Your task to perform on an android device: change your default location settings in chrome Image 0: 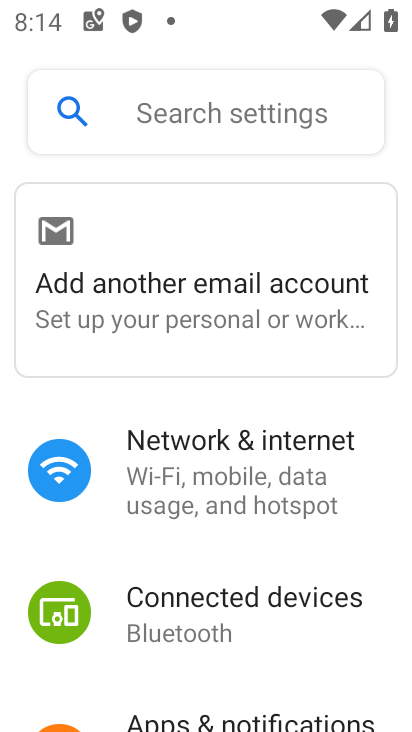
Step 0: press home button
Your task to perform on an android device: change your default location settings in chrome Image 1: 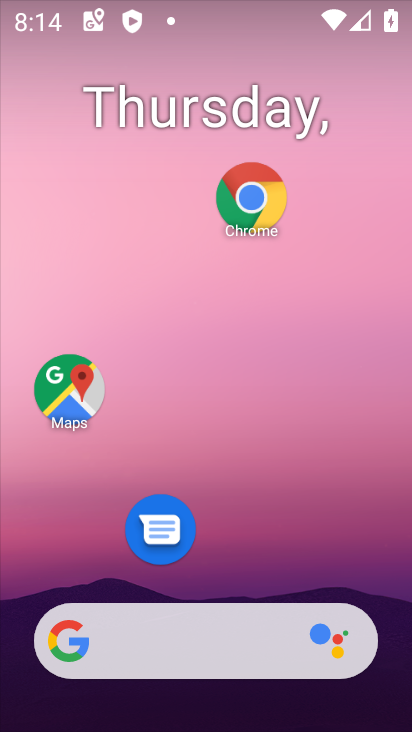
Step 1: drag from (214, 558) to (225, 230)
Your task to perform on an android device: change your default location settings in chrome Image 2: 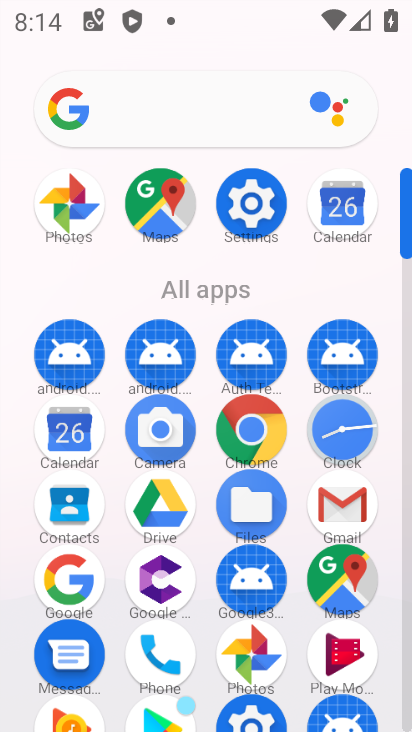
Step 2: click (258, 437)
Your task to perform on an android device: change your default location settings in chrome Image 3: 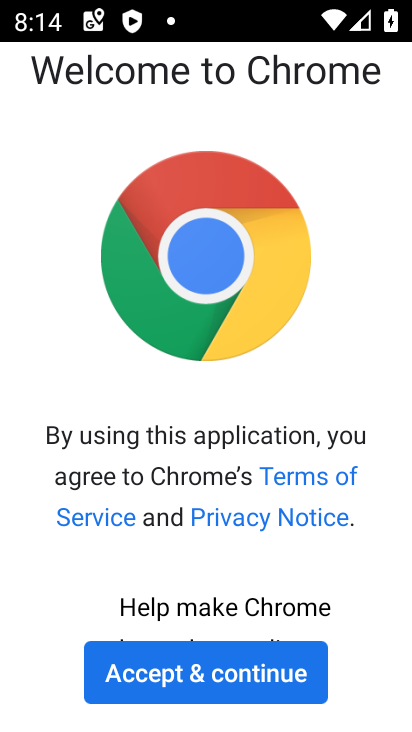
Step 3: click (189, 683)
Your task to perform on an android device: change your default location settings in chrome Image 4: 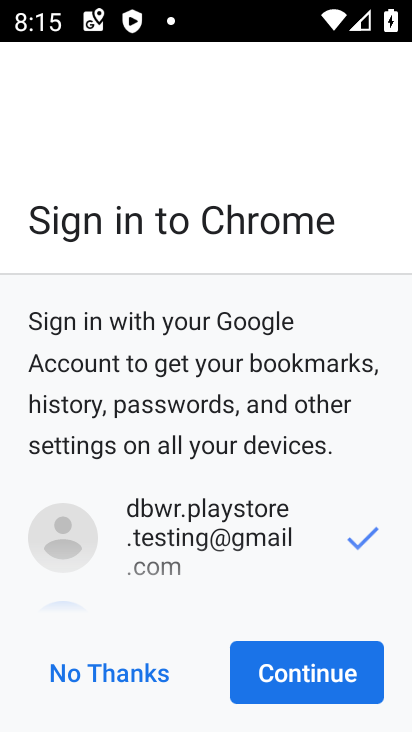
Step 4: click (259, 690)
Your task to perform on an android device: change your default location settings in chrome Image 5: 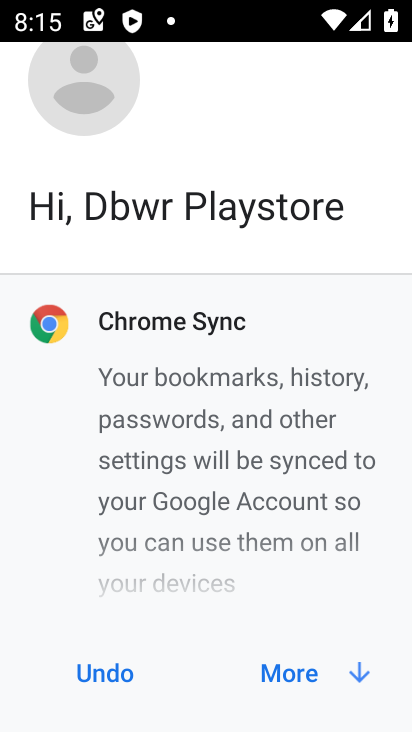
Step 5: click (282, 668)
Your task to perform on an android device: change your default location settings in chrome Image 6: 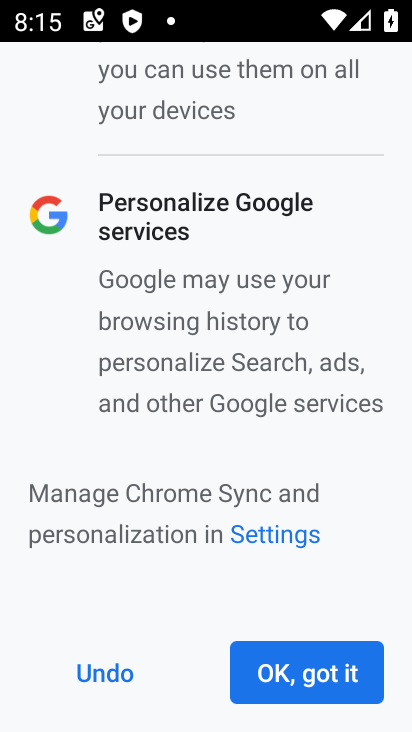
Step 6: click (282, 668)
Your task to perform on an android device: change your default location settings in chrome Image 7: 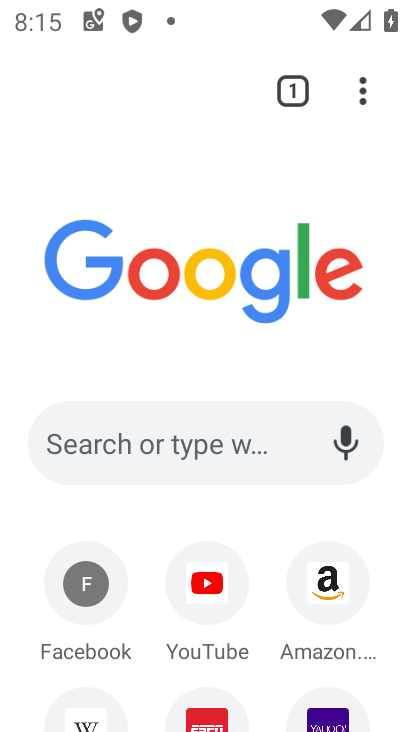
Step 7: click (357, 92)
Your task to perform on an android device: change your default location settings in chrome Image 8: 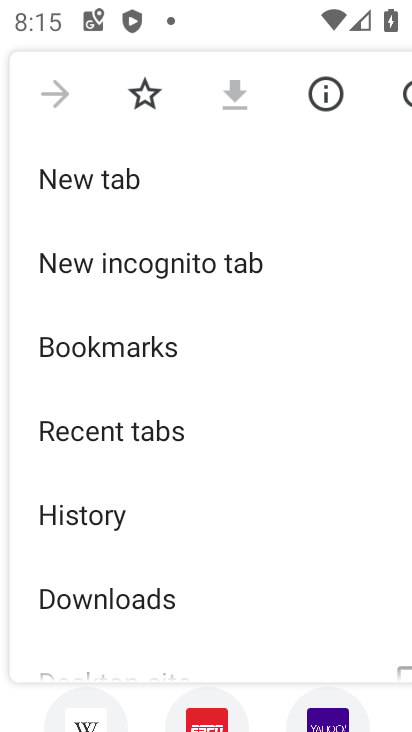
Step 8: drag from (143, 545) to (142, 254)
Your task to perform on an android device: change your default location settings in chrome Image 9: 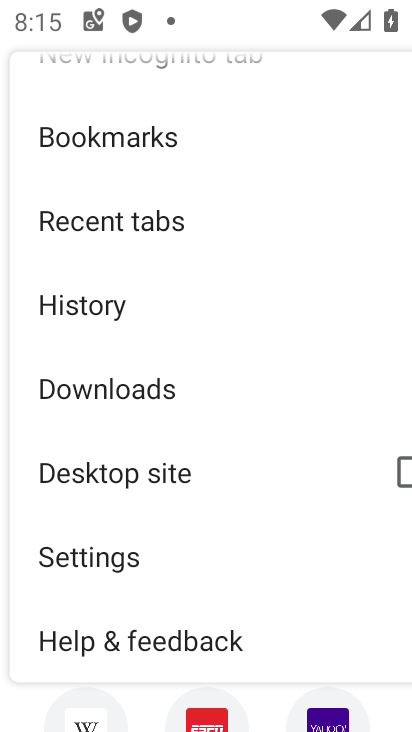
Step 9: click (93, 564)
Your task to perform on an android device: change your default location settings in chrome Image 10: 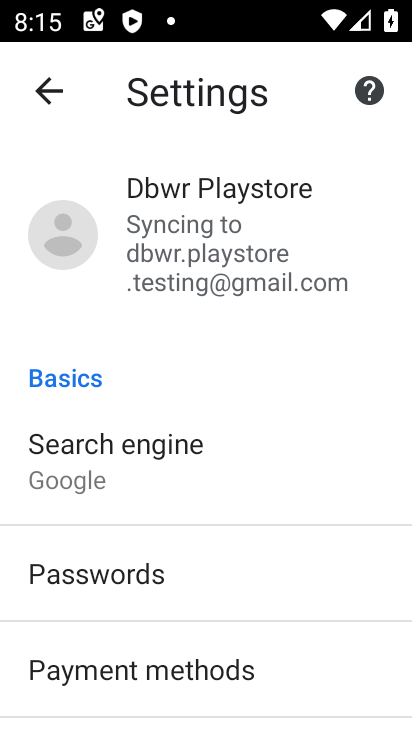
Step 10: drag from (112, 576) to (118, 328)
Your task to perform on an android device: change your default location settings in chrome Image 11: 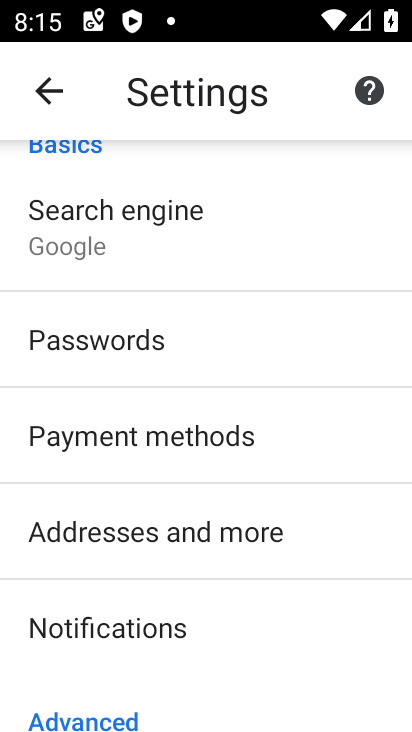
Step 11: drag from (209, 692) to (226, 378)
Your task to perform on an android device: change your default location settings in chrome Image 12: 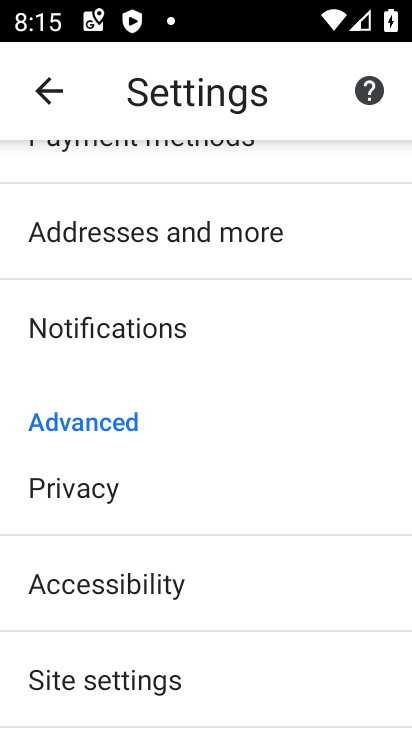
Step 12: click (151, 671)
Your task to perform on an android device: change your default location settings in chrome Image 13: 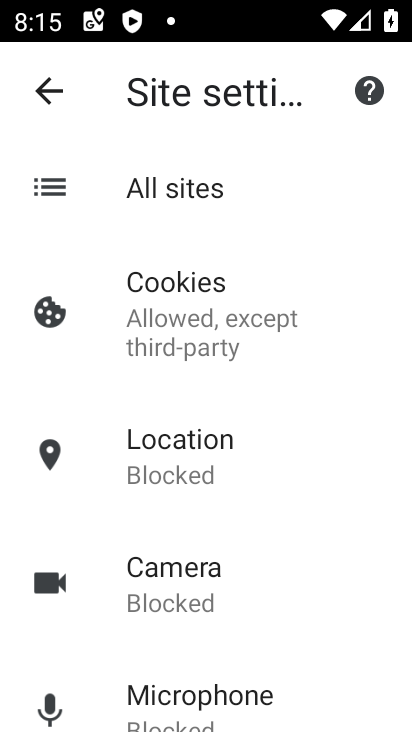
Step 13: click (128, 445)
Your task to perform on an android device: change your default location settings in chrome Image 14: 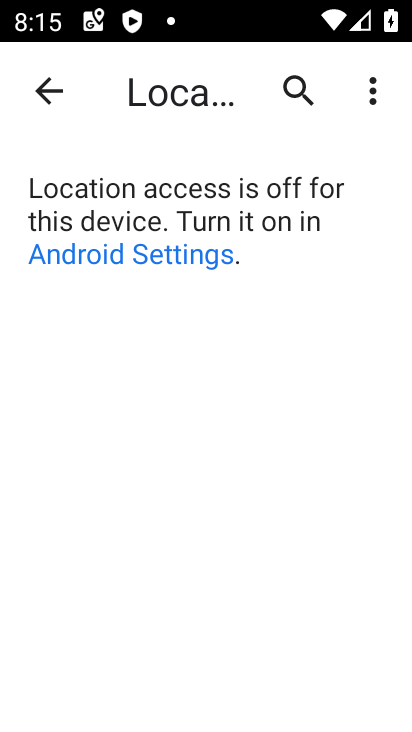
Step 14: click (202, 270)
Your task to perform on an android device: change your default location settings in chrome Image 15: 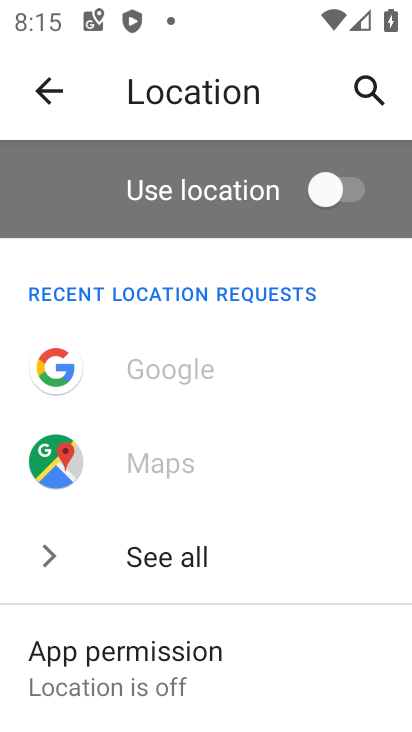
Step 15: drag from (252, 642) to (252, 245)
Your task to perform on an android device: change your default location settings in chrome Image 16: 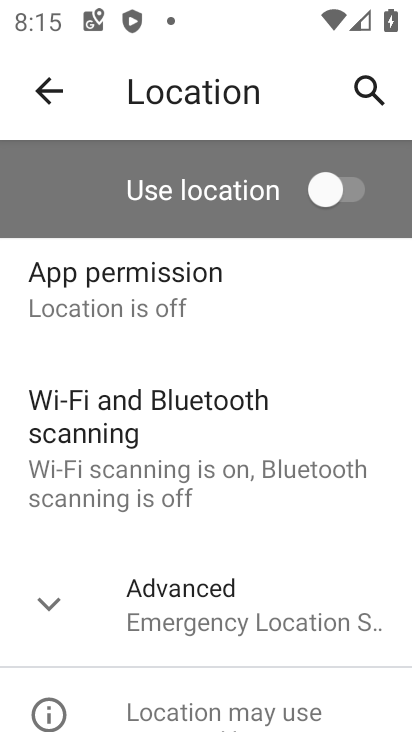
Step 16: click (353, 198)
Your task to perform on an android device: change your default location settings in chrome Image 17: 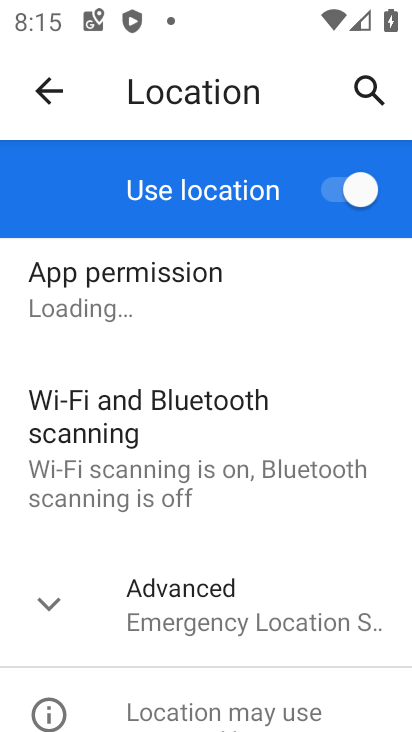
Step 17: task complete